Your task to perform on an android device: Open the calendar app, open the side menu, and click the "Day" option Image 0: 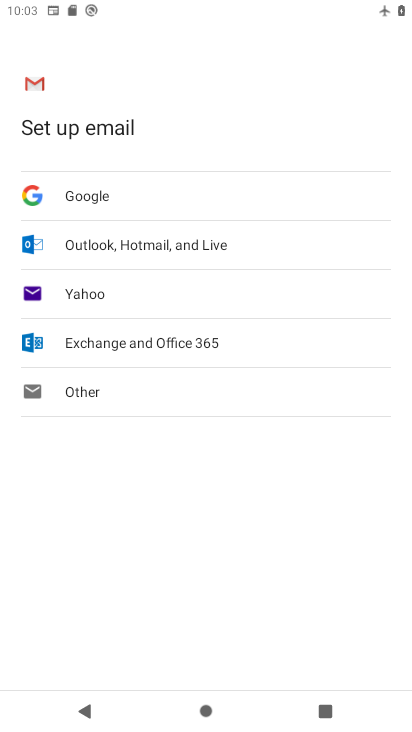
Step 0: press home button
Your task to perform on an android device: Open the calendar app, open the side menu, and click the "Day" option Image 1: 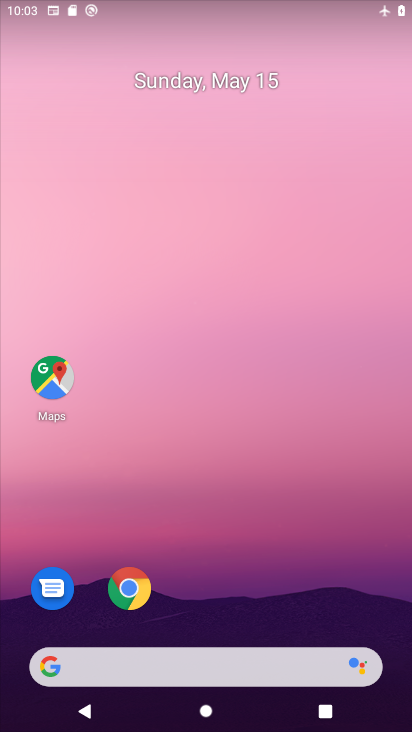
Step 1: click (160, 80)
Your task to perform on an android device: Open the calendar app, open the side menu, and click the "Day" option Image 2: 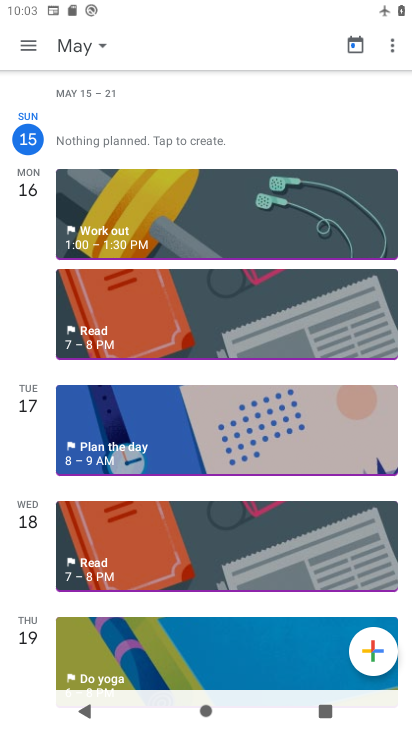
Step 2: click (33, 39)
Your task to perform on an android device: Open the calendar app, open the side menu, and click the "Day" option Image 3: 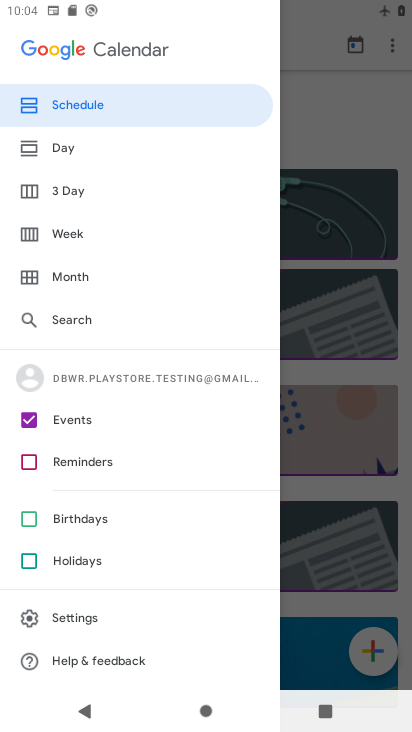
Step 3: click (60, 141)
Your task to perform on an android device: Open the calendar app, open the side menu, and click the "Day" option Image 4: 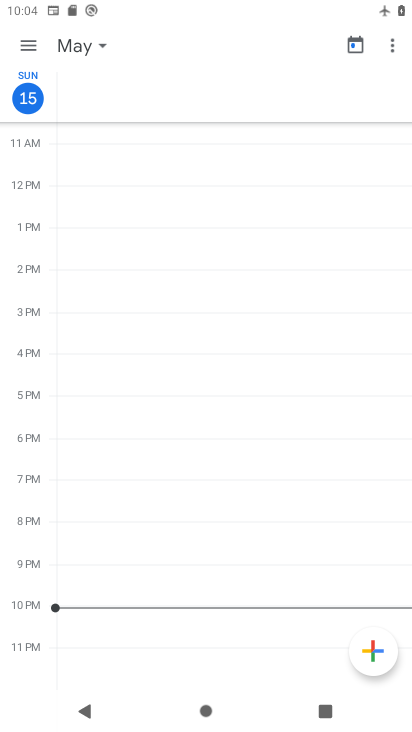
Step 4: task complete